Your task to perform on an android device: Open privacy settings Image 0: 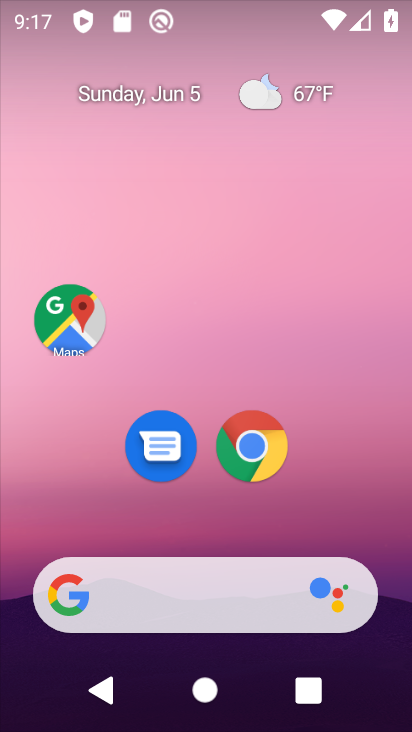
Step 0: drag from (218, 525) to (205, 120)
Your task to perform on an android device: Open privacy settings Image 1: 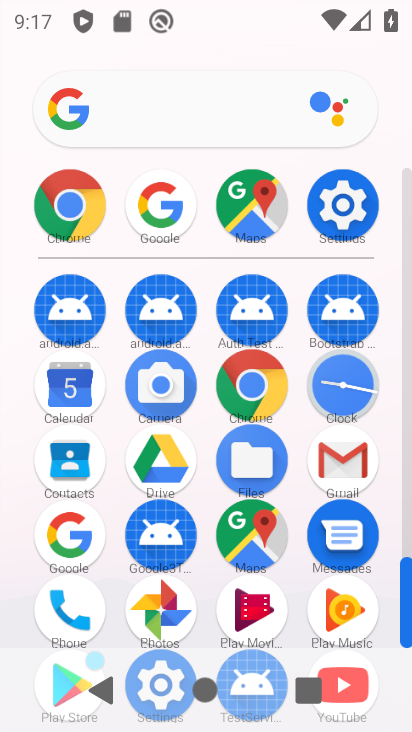
Step 1: click (351, 208)
Your task to perform on an android device: Open privacy settings Image 2: 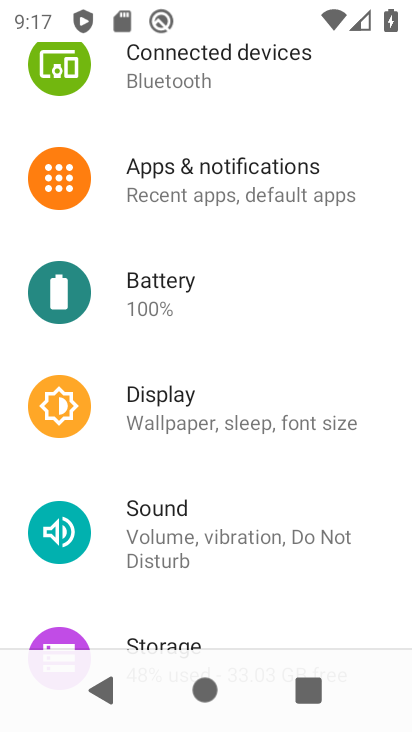
Step 2: drag from (222, 459) to (231, 272)
Your task to perform on an android device: Open privacy settings Image 3: 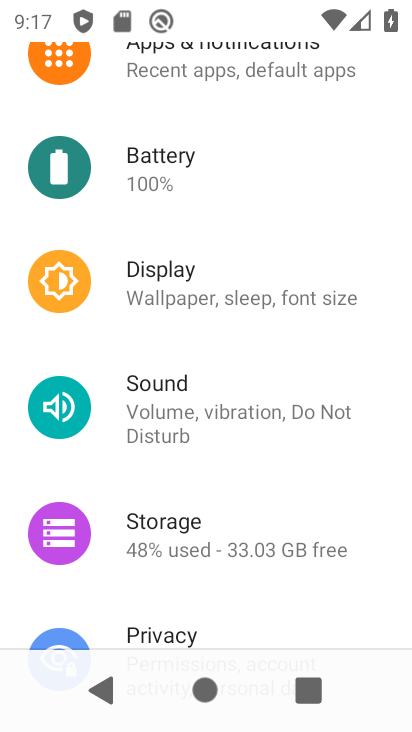
Step 3: drag from (213, 582) to (219, 343)
Your task to perform on an android device: Open privacy settings Image 4: 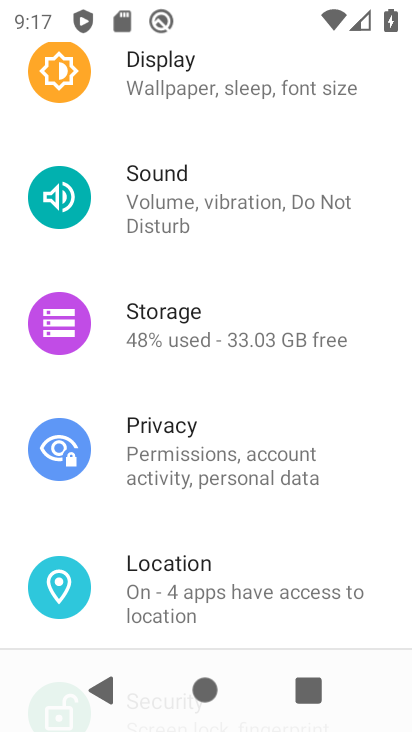
Step 4: click (165, 444)
Your task to perform on an android device: Open privacy settings Image 5: 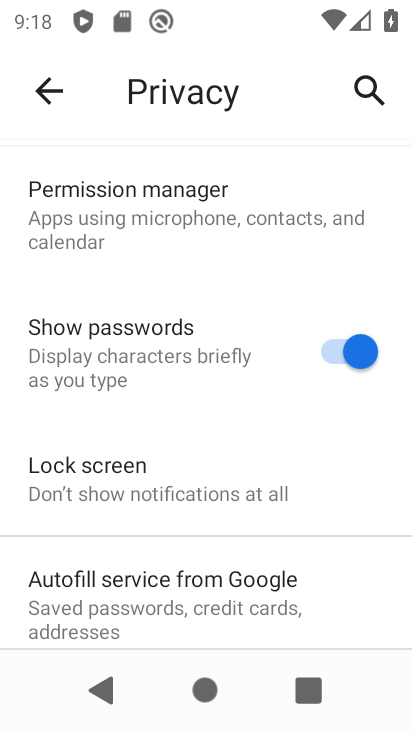
Step 5: task complete